Your task to perform on an android device: turn off airplane mode Image 0: 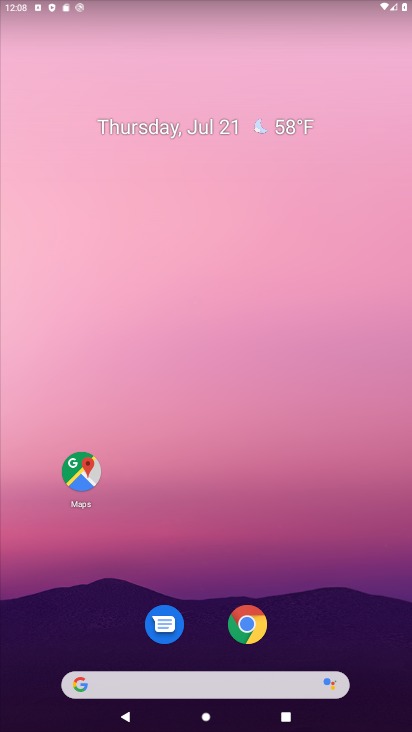
Step 0: drag from (203, 603) to (225, 151)
Your task to perform on an android device: turn off airplane mode Image 1: 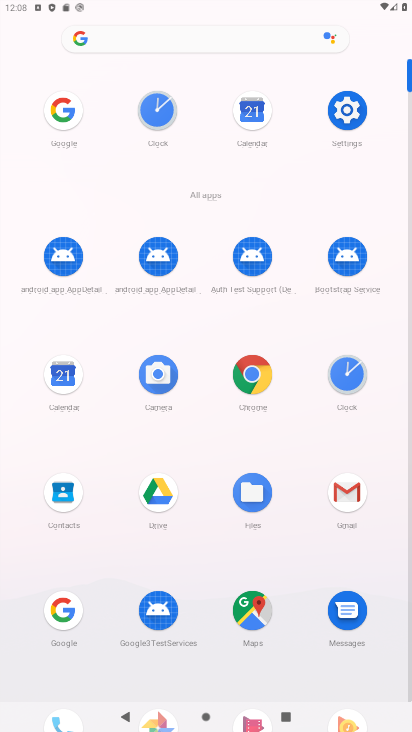
Step 1: click (367, 112)
Your task to perform on an android device: turn off airplane mode Image 2: 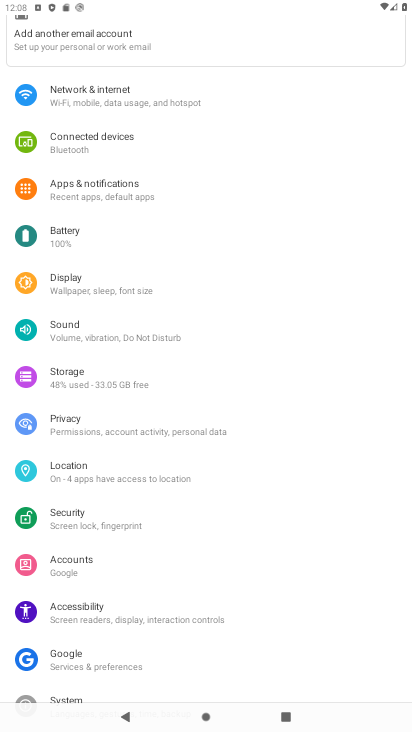
Step 2: click (92, 101)
Your task to perform on an android device: turn off airplane mode Image 3: 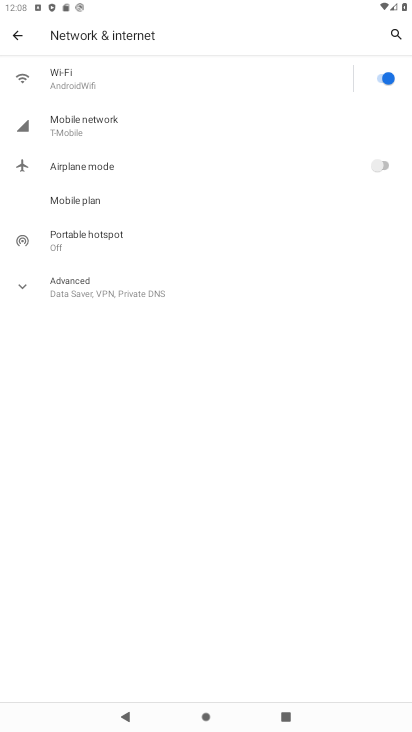
Step 3: task complete